Your task to perform on an android device: set an alarm Image 0: 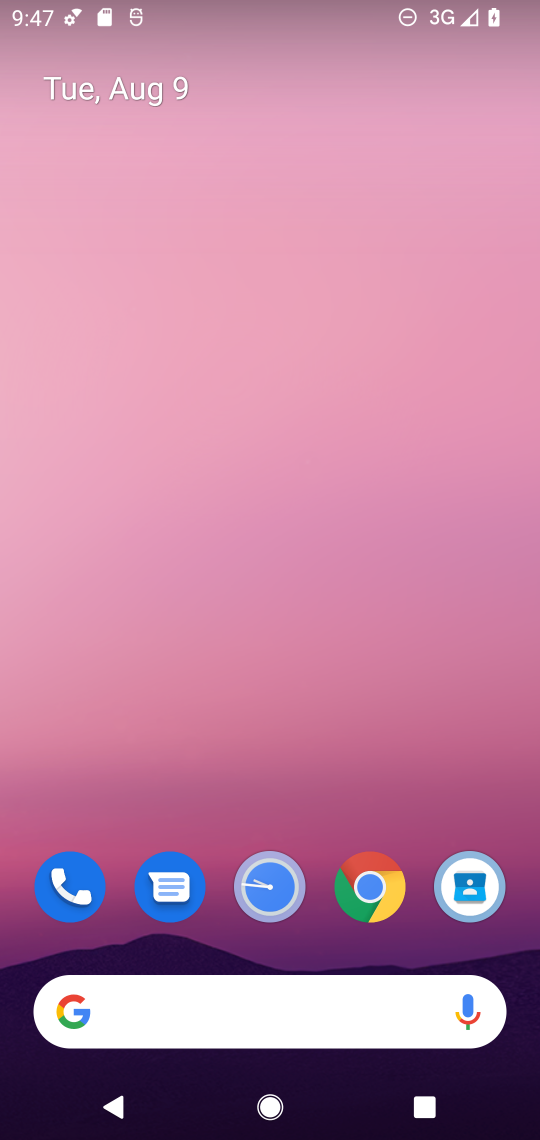
Step 0: click (272, 880)
Your task to perform on an android device: set an alarm Image 1: 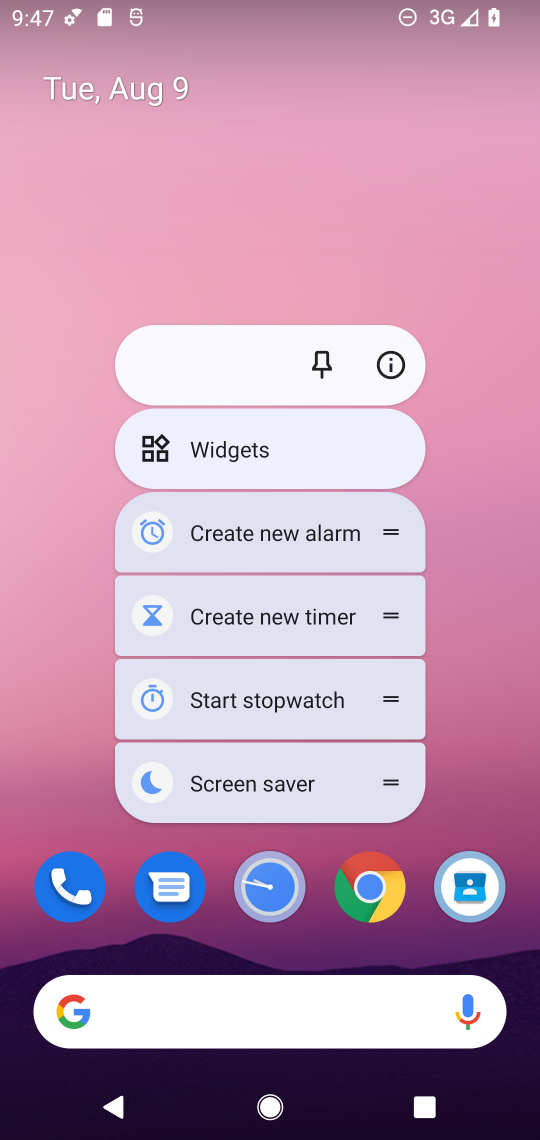
Step 1: click (267, 885)
Your task to perform on an android device: set an alarm Image 2: 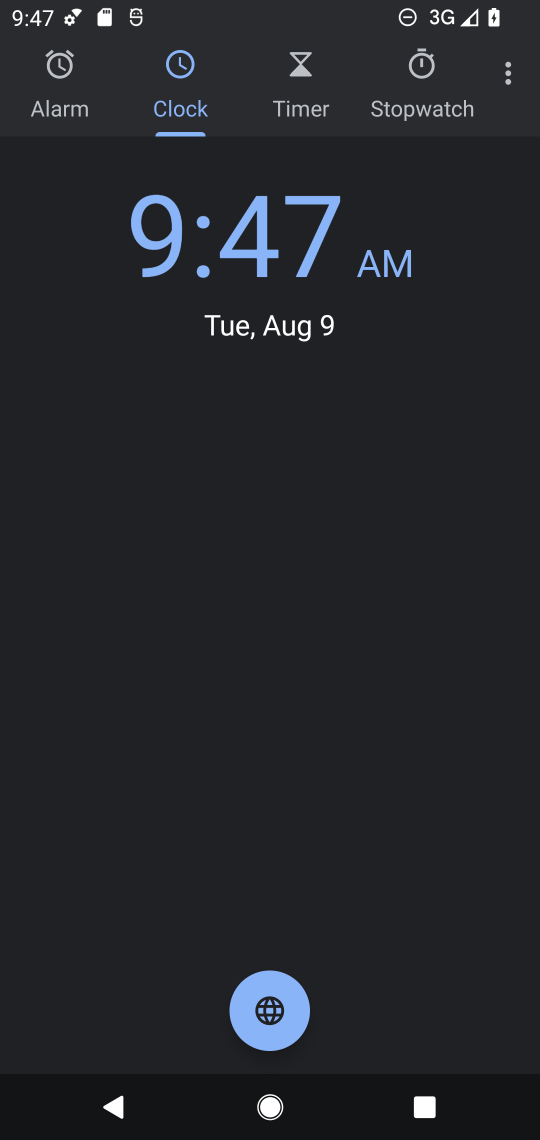
Step 2: click (79, 72)
Your task to perform on an android device: set an alarm Image 3: 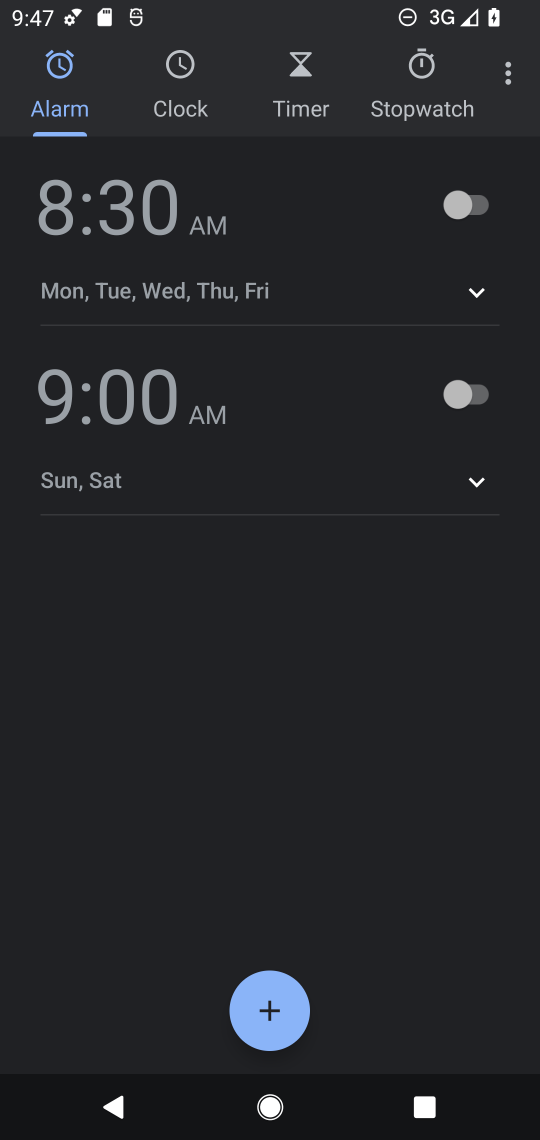
Step 3: click (483, 209)
Your task to perform on an android device: set an alarm Image 4: 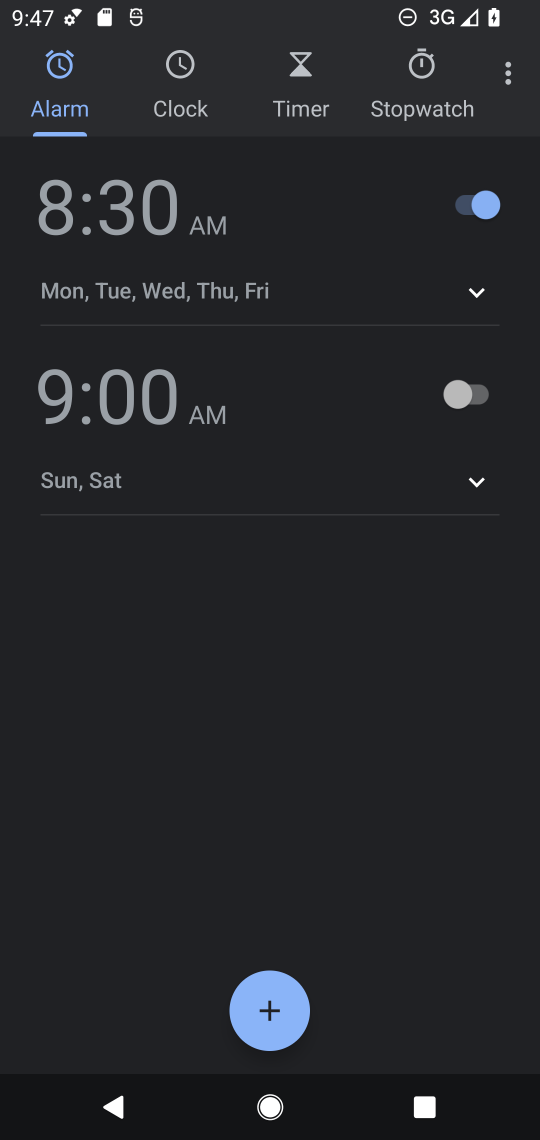
Step 4: task complete